Your task to perform on an android device: What is the recent news? Image 0: 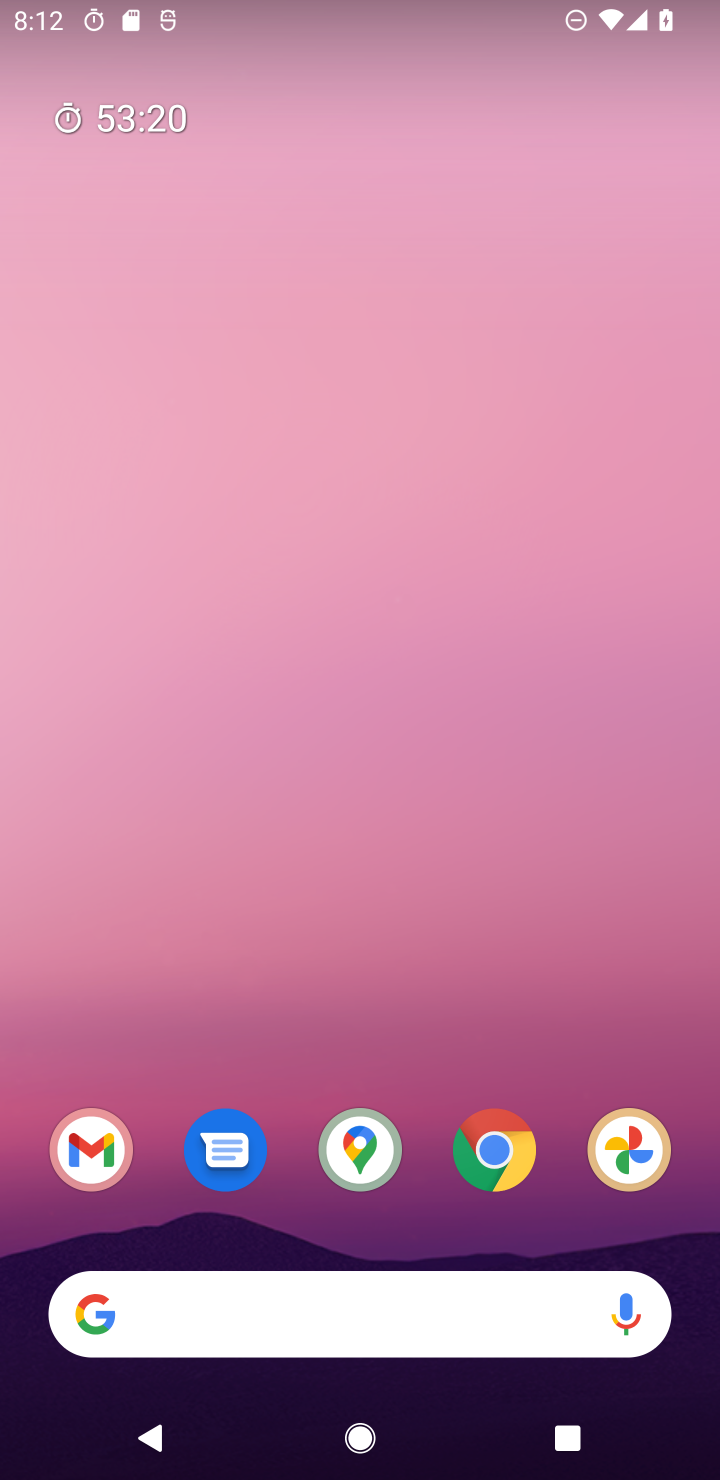
Step 0: drag from (458, 1270) to (707, 0)
Your task to perform on an android device: What is the recent news? Image 1: 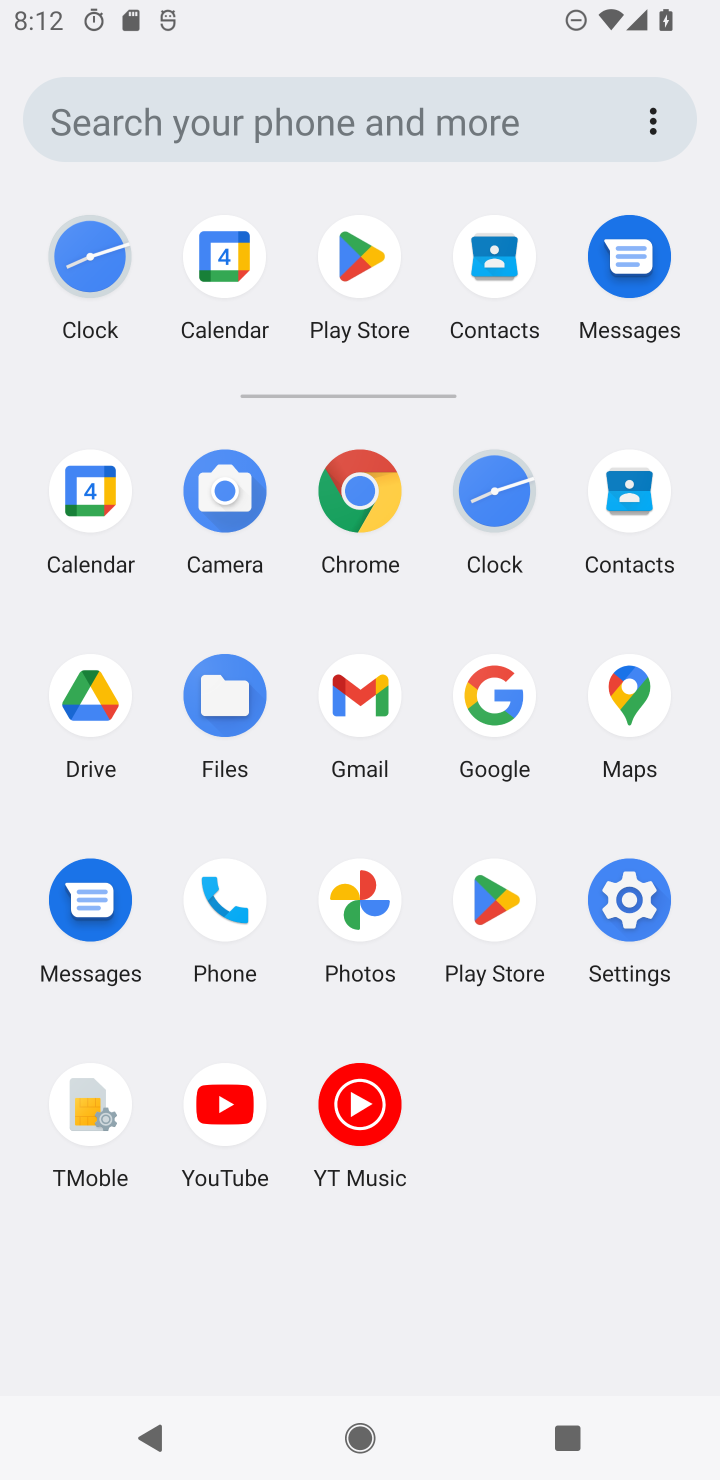
Step 1: click (356, 464)
Your task to perform on an android device: What is the recent news? Image 2: 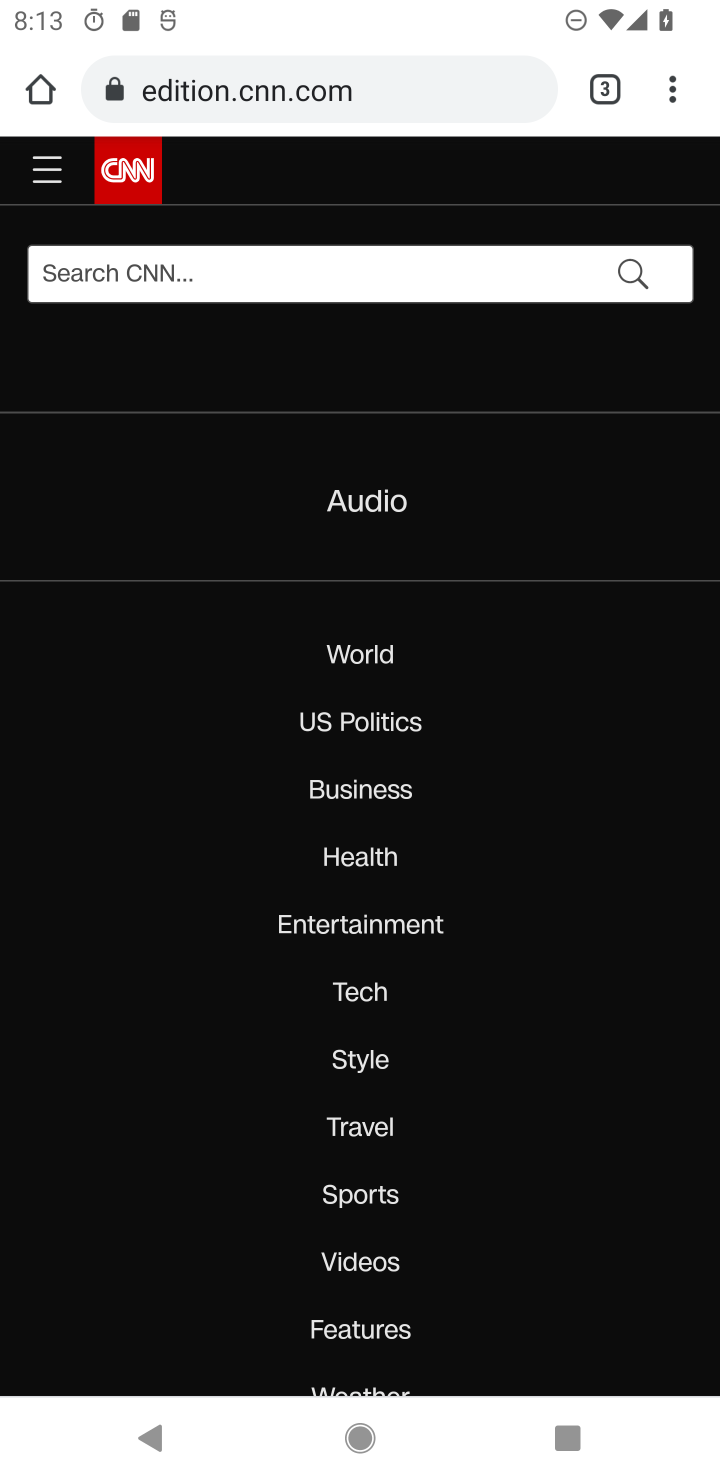
Step 2: click (406, 76)
Your task to perform on an android device: What is the recent news? Image 3: 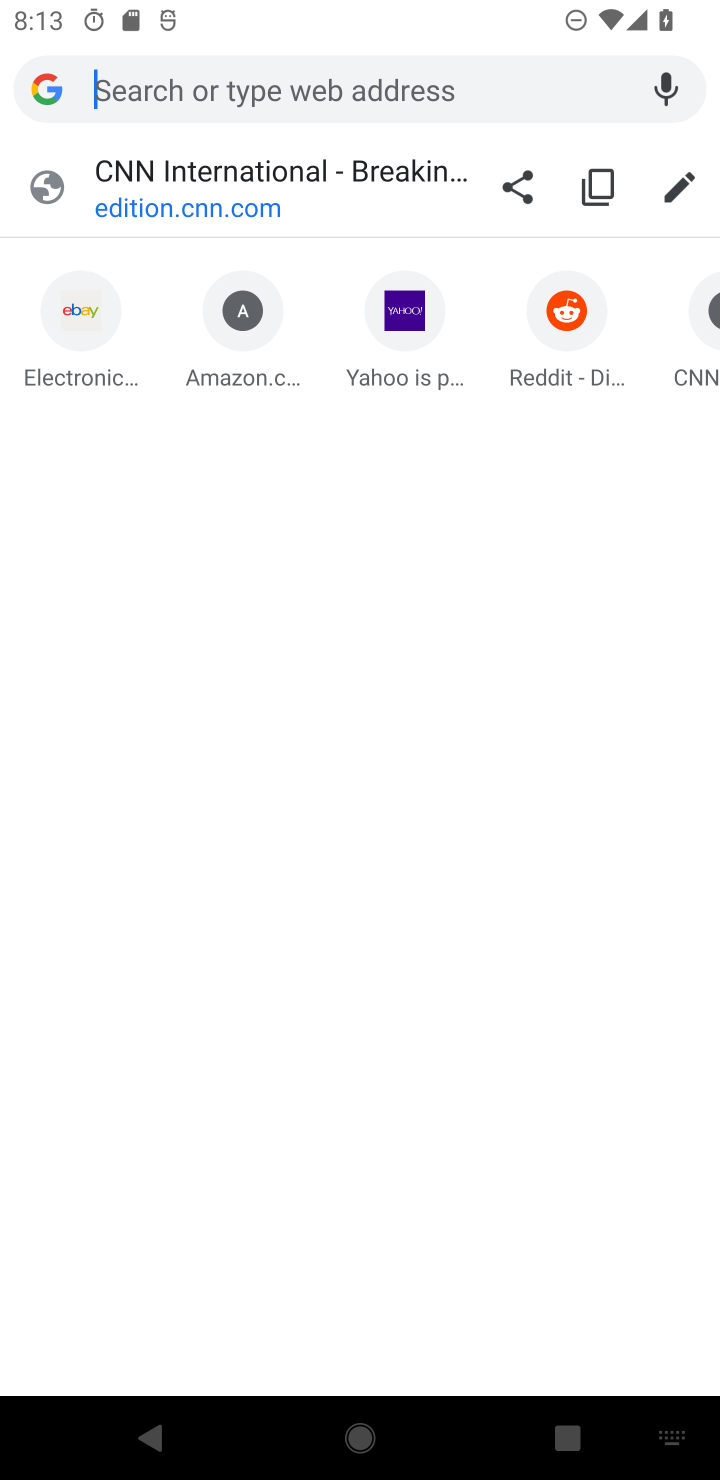
Step 3: type "recent news"
Your task to perform on an android device: What is the recent news? Image 4: 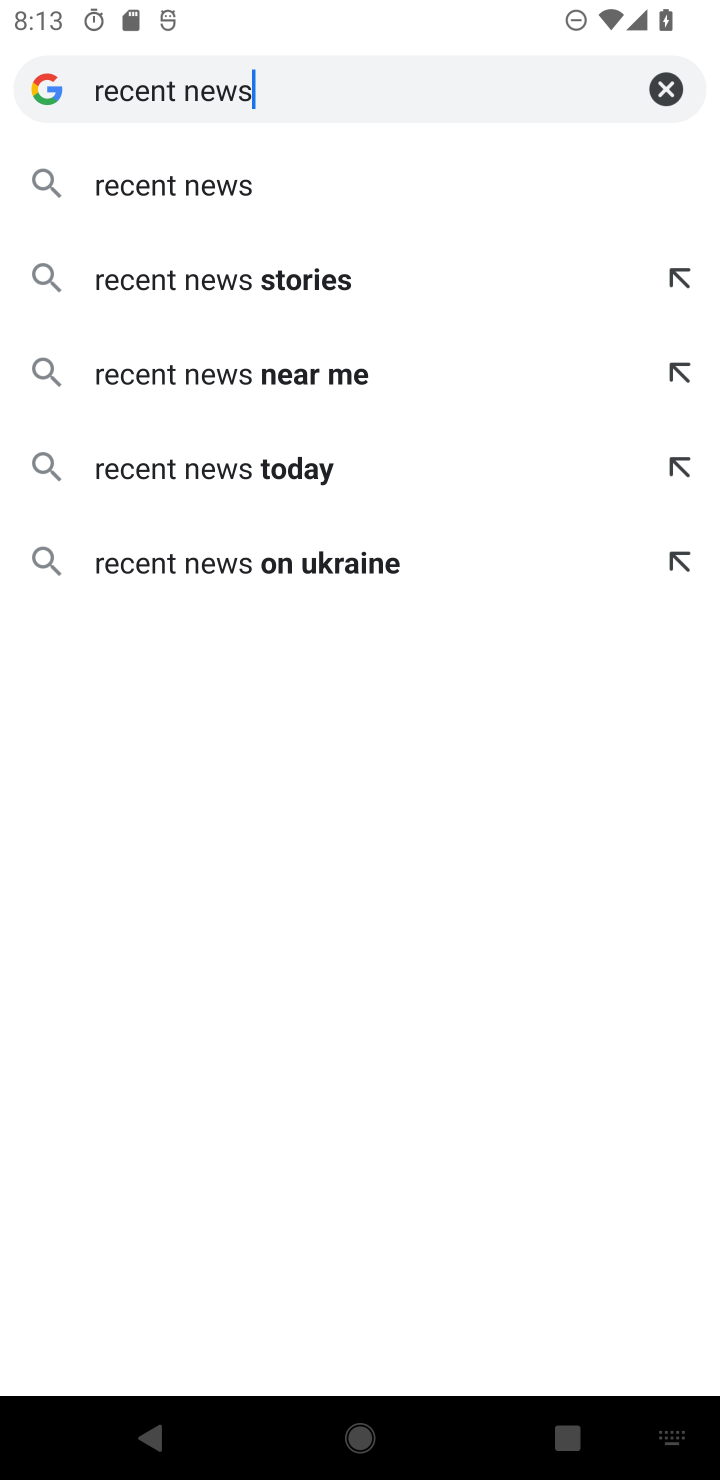
Step 4: click (215, 184)
Your task to perform on an android device: What is the recent news? Image 5: 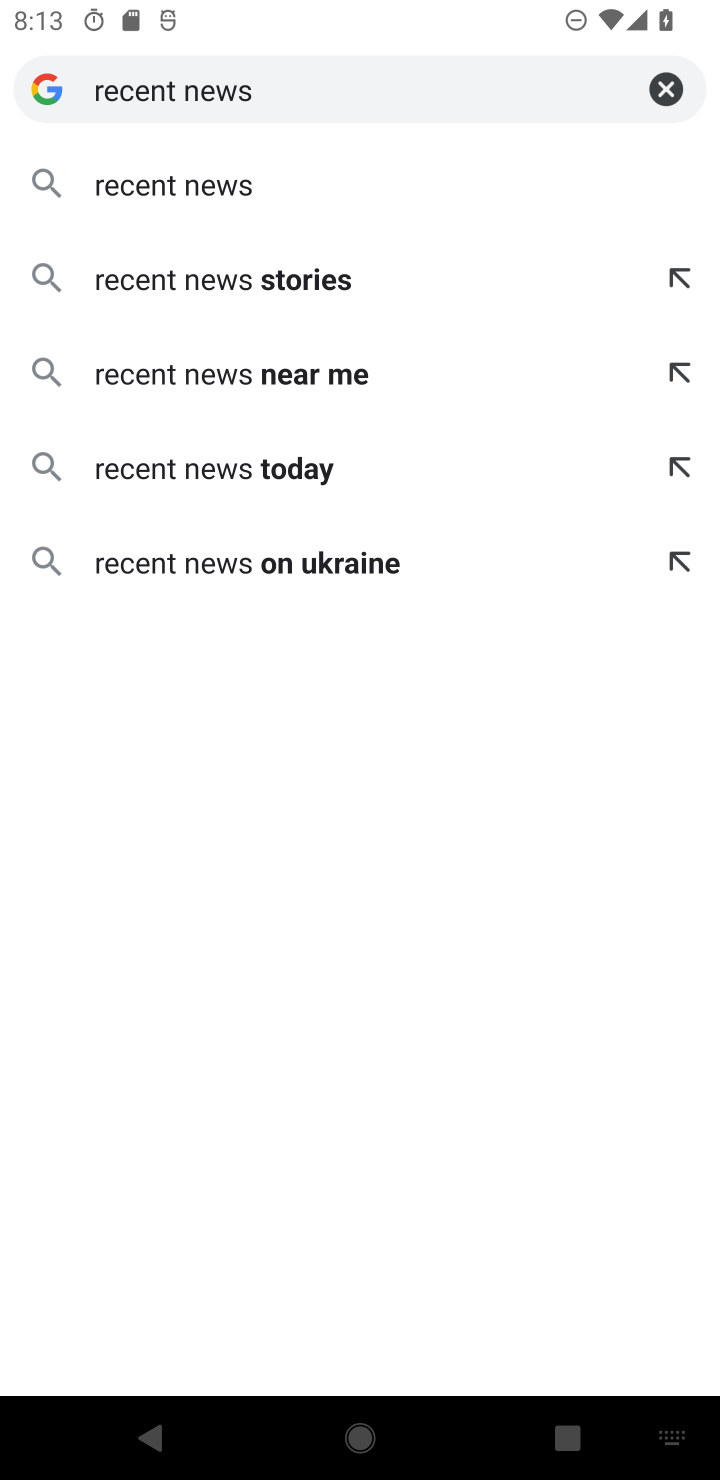
Step 5: click (215, 184)
Your task to perform on an android device: What is the recent news? Image 6: 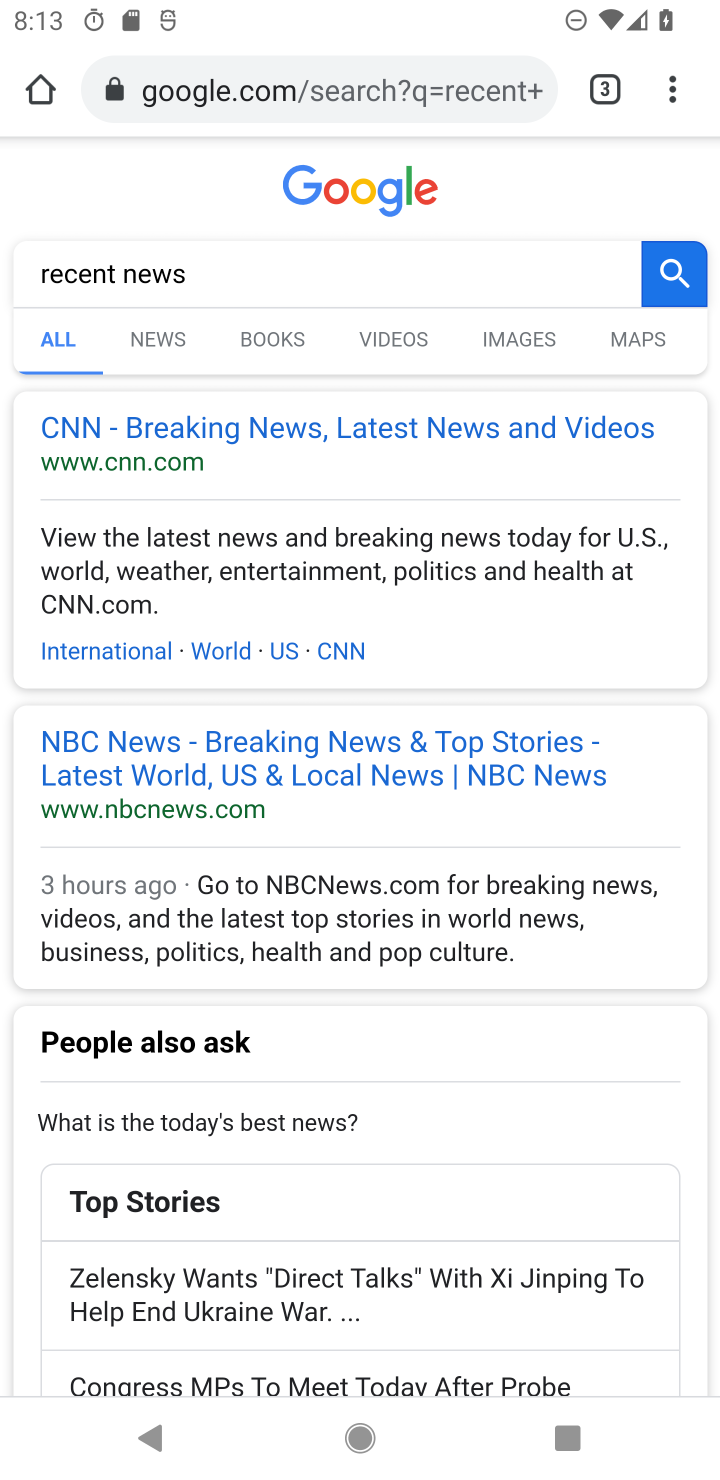
Step 6: task complete